Your task to perform on an android device: Open the phone app and click the voicemail tab. Image 0: 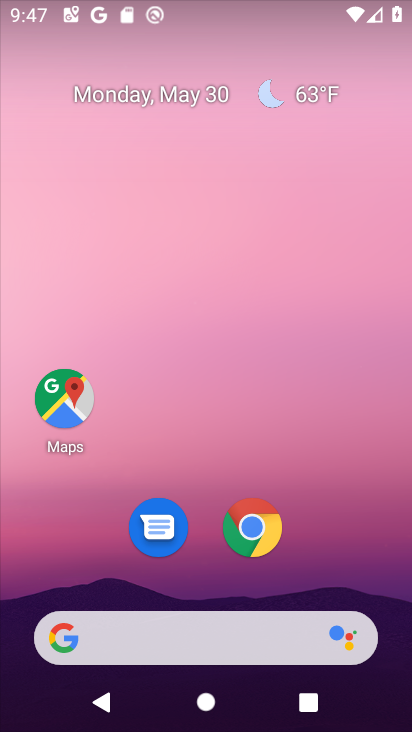
Step 0: drag from (317, 579) to (325, 215)
Your task to perform on an android device: Open the phone app and click the voicemail tab. Image 1: 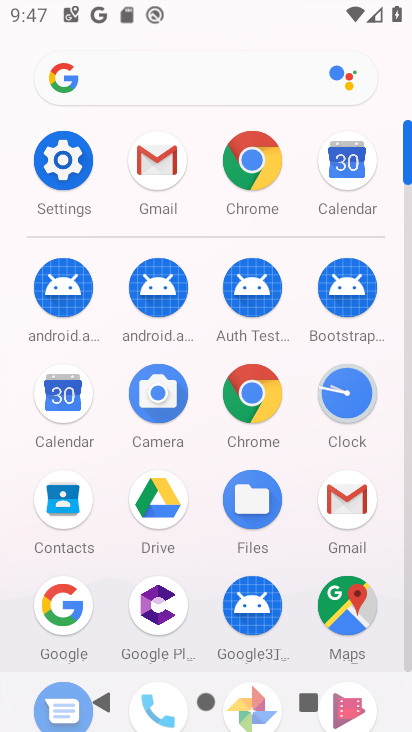
Step 1: drag from (292, 583) to (297, 311)
Your task to perform on an android device: Open the phone app and click the voicemail tab. Image 2: 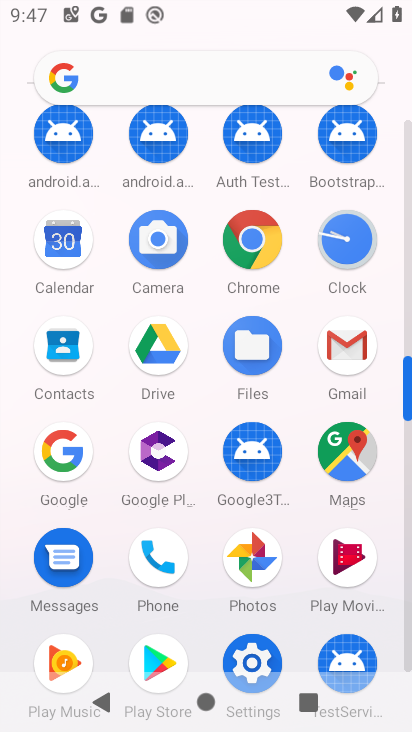
Step 2: click (170, 565)
Your task to perform on an android device: Open the phone app and click the voicemail tab. Image 3: 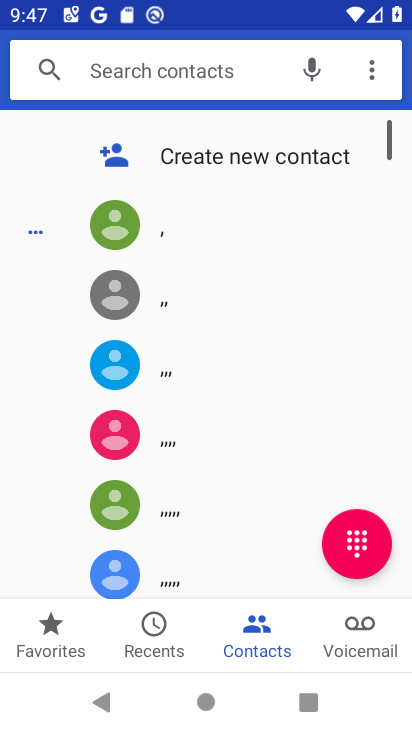
Step 3: click (365, 626)
Your task to perform on an android device: Open the phone app and click the voicemail tab. Image 4: 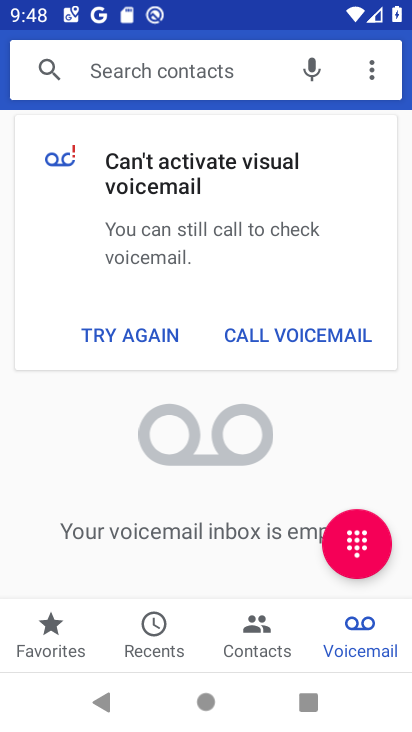
Step 4: task complete